Your task to perform on an android device: open a bookmark in the chrome app Image 0: 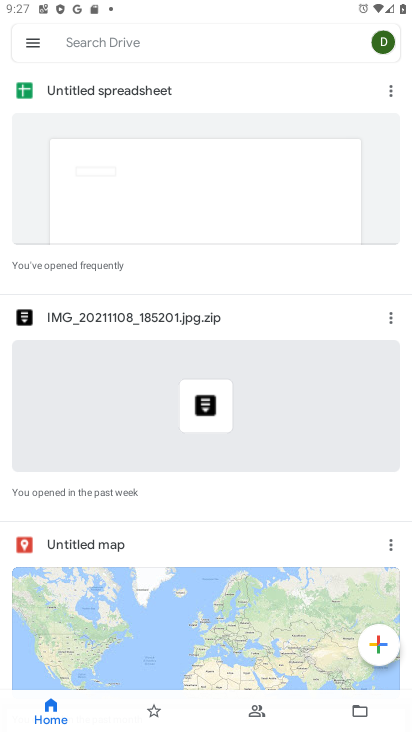
Step 0: press home button
Your task to perform on an android device: open a bookmark in the chrome app Image 1: 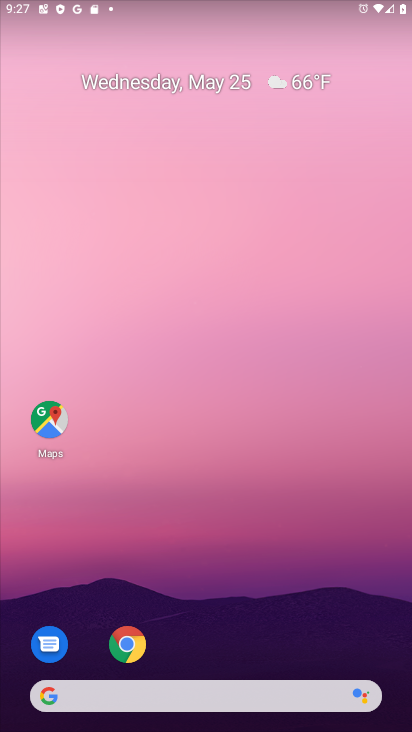
Step 1: click (126, 637)
Your task to perform on an android device: open a bookmark in the chrome app Image 2: 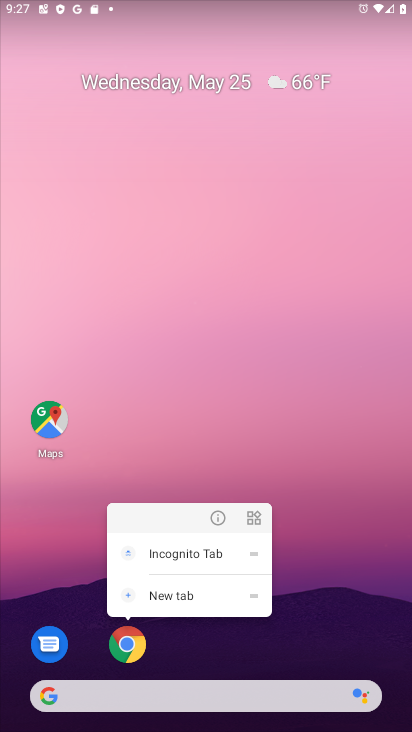
Step 2: click (126, 637)
Your task to perform on an android device: open a bookmark in the chrome app Image 3: 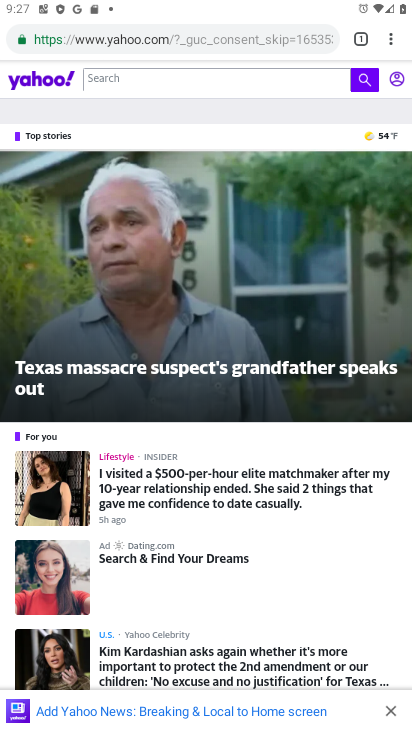
Step 3: click (389, 38)
Your task to perform on an android device: open a bookmark in the chrome app Image 4: 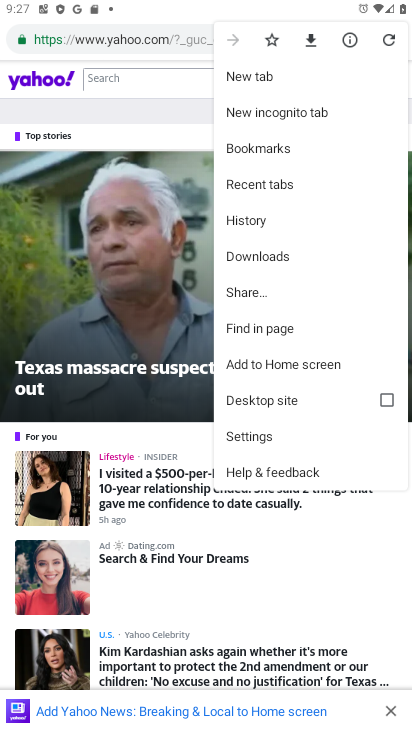
Step 4: click (289, 148)
Your task to perform on an android device: open a bookmark in the chrome app Image 5: 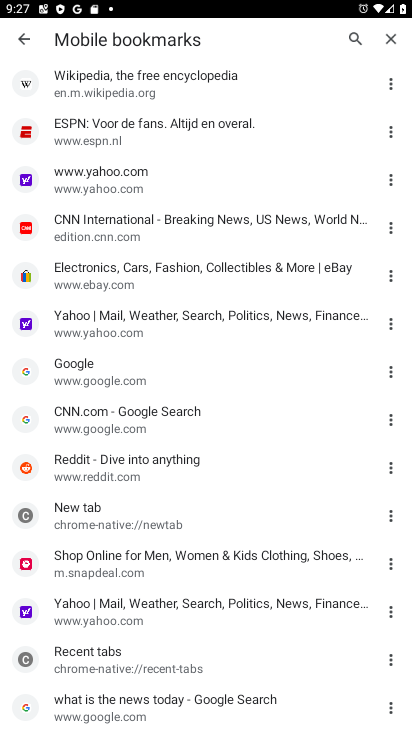
Step 5: click (180, 554)
Your task to perform on an android device: open a bookmark in the chrome app Image 6: 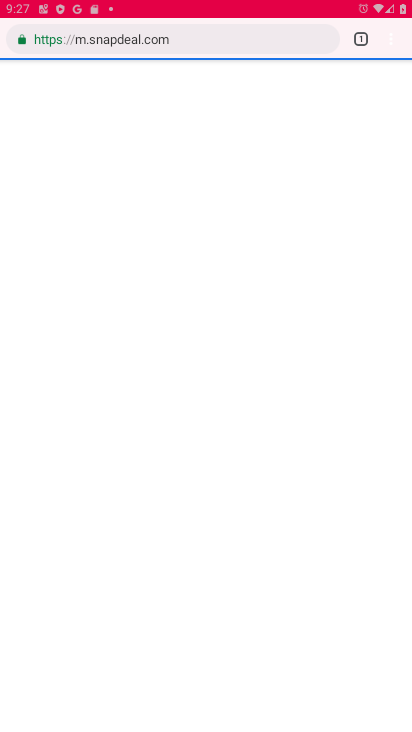
Step 6: task complete